Your task to perform on an android device: see creations saved in the google photos Image 0: 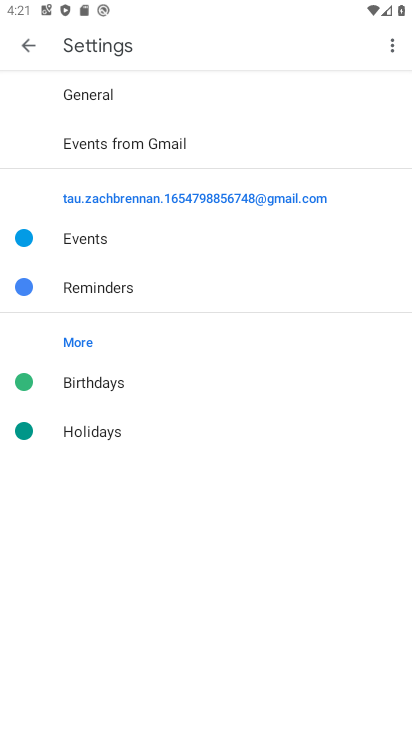
Step 0: press home button
Your task to perform on an android device: see creations saved in the google photos Image 1: 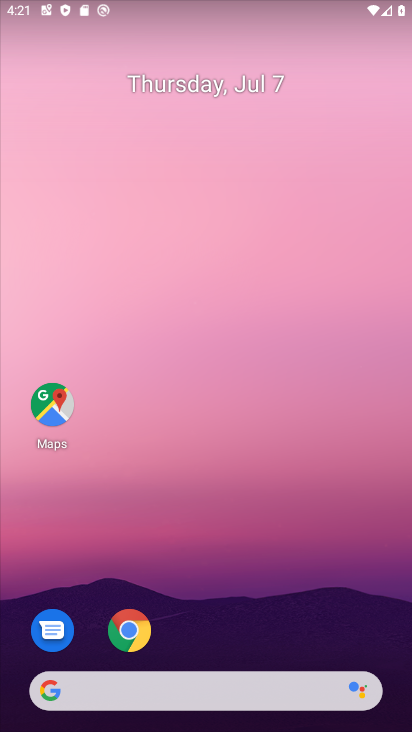
Step 1: drag from (223, 621) to (238, 65)
Your task to perform on an android device: see creations saved in the google photos Image 2: 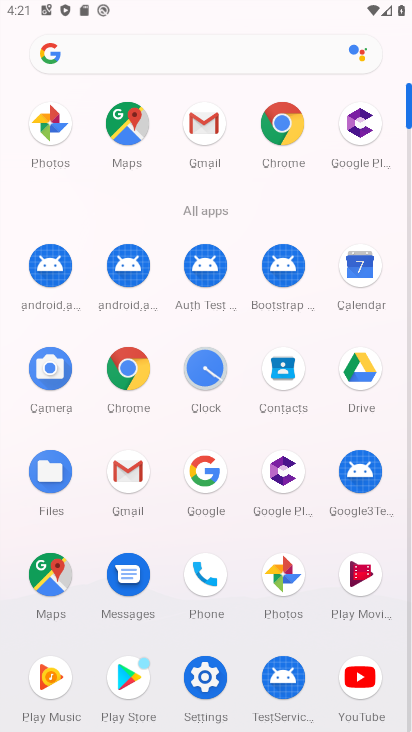
Step 2: click (281, 586)
Your task to perform on an android device: see creations saved in the google photos Image 3: 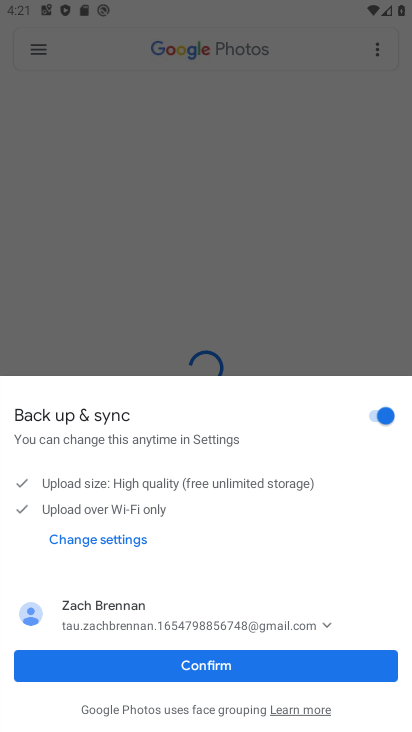
Step 3: click (220, 661)
Your task to perform on an android device: see creations saved in the google photos Image 4: 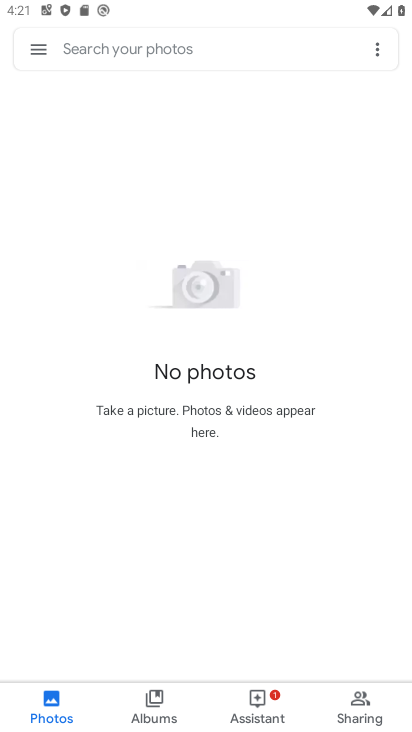
Step 4: click (266, 698)
Your task to perform on an android device: see creations saved in the google photos Image 5: 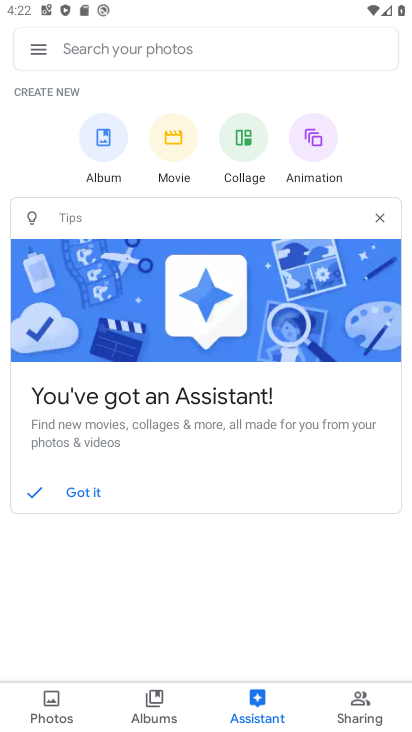
Step 5: click (147, 705)
Your task to perform on an android device: see creations saved in the google photos Image 6: 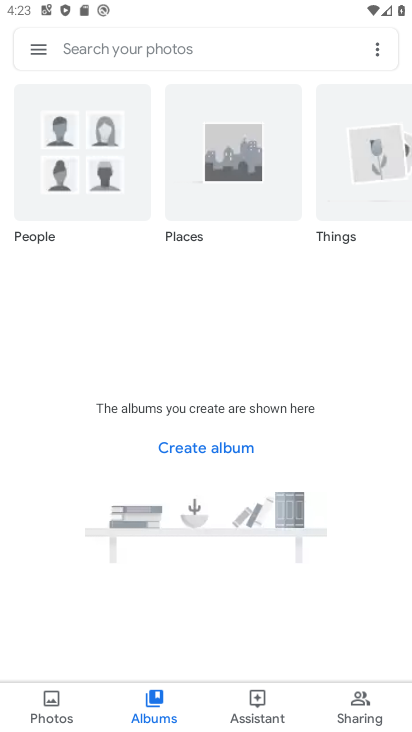
Step 6: task complete